Your task to perform on an android device: Search for apple airpods on ebay.com, select the first entry, add it to the cart, then select checkout. Image 0: 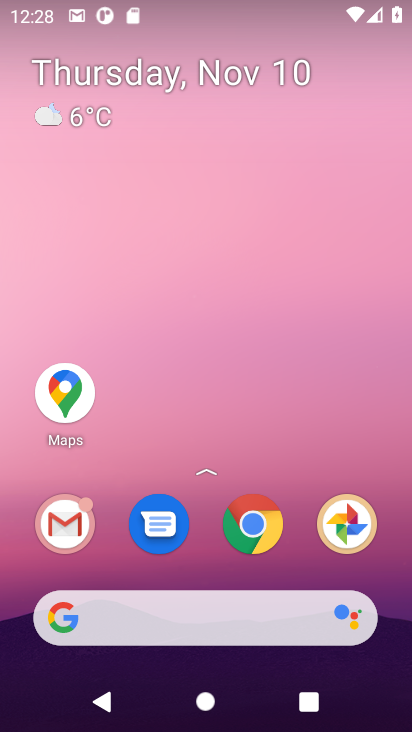
Step 0: click (251, 525)
Your task to perform on an android device: Search for apple airpods on ebay.com, select the first entry, add it to the cart, then select checkout. Image 1: 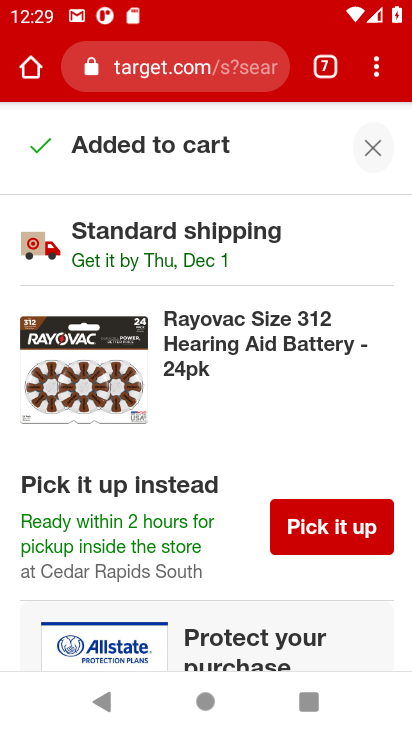
Step 1: click (319, 64)
Your task to perform on an android device: Search for apple airpods on ebay.com, select the first entry, add it to the cart, then select checkout. Image 2: 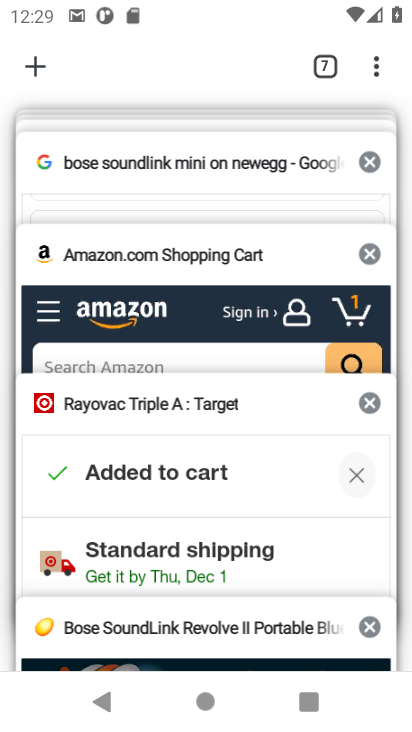
Step 2: task complete